Your task to perform on an android device: Toggle the flashlight Image 0: 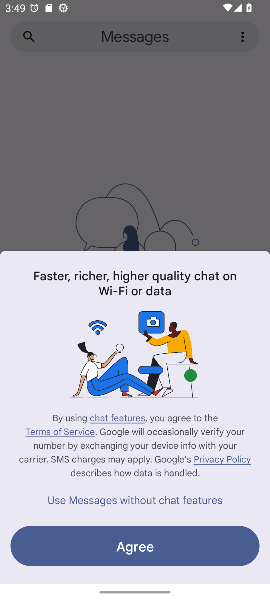
Step 0: press home button
Your task to perform on an android device: Toggle the flashlight Image 1: 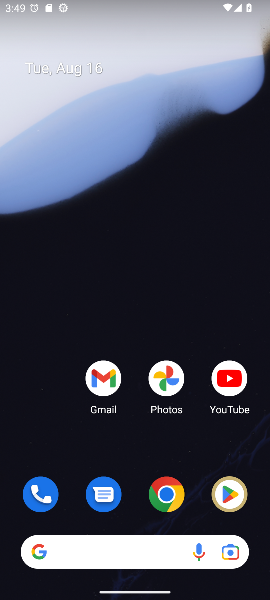
Step 1: drag from (167, 8) to (19, 452)
Your task to perform on an android device: Toggle the flashlight Image 2: 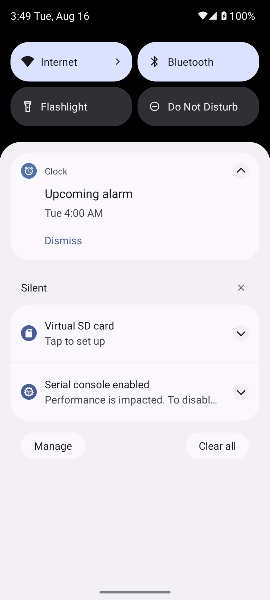
Step 2: click (46, 118)
Your task to perform on an android device: Toggle the flashlight Image 3: 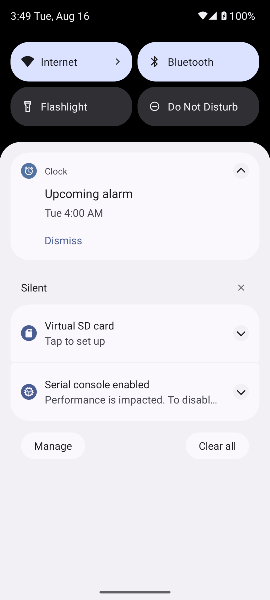
Step 3: drag from (110, 132) to (38, 555)
Your task to perform on an android device: Toggle the flashlight Image 4: 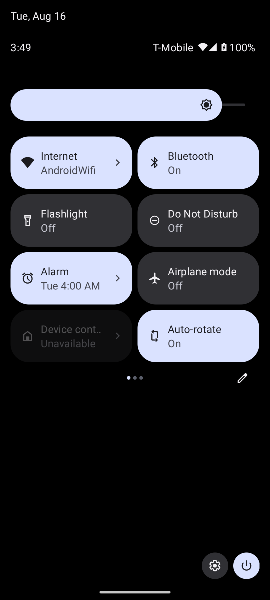
Step 4: click (52, 225)
Your task to perform on an android device: Toggle the flashlight Image 5: 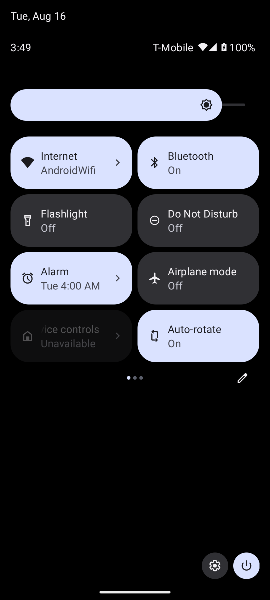
Step 5: click (47, 225)
Your task to perform on an android device: Toggle the flashlight Image 6: 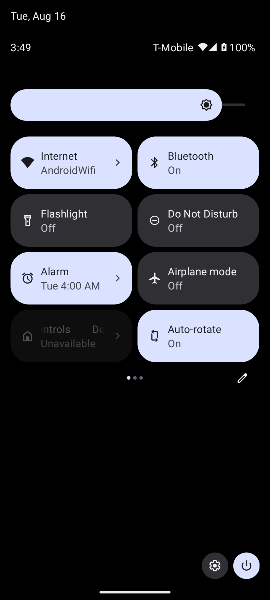
Step 6: click (47, 225)
Your task to perform on an android device: Toggle the flashlight Image 7: 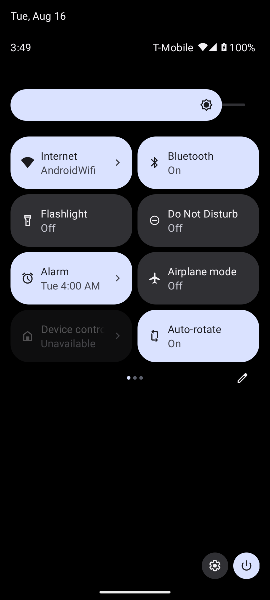
Step 7: click (115, 221)
Your task to perform on an android device: Toggle the flashlight Image 8: 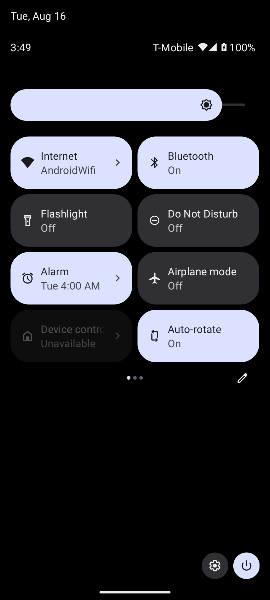
Step 8: task complete